Your task to perform on an android device: delete the emails in spam in the gmail app Image 0: 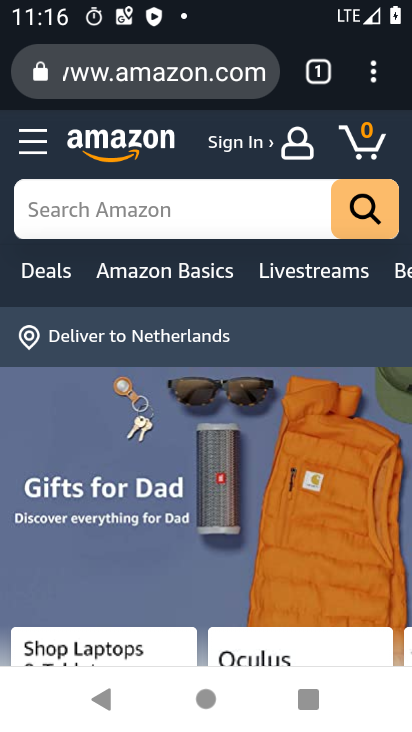
Step 0: press home button
Your task to perform on an android device: delete the emails in spam in the gmail app Image 1: 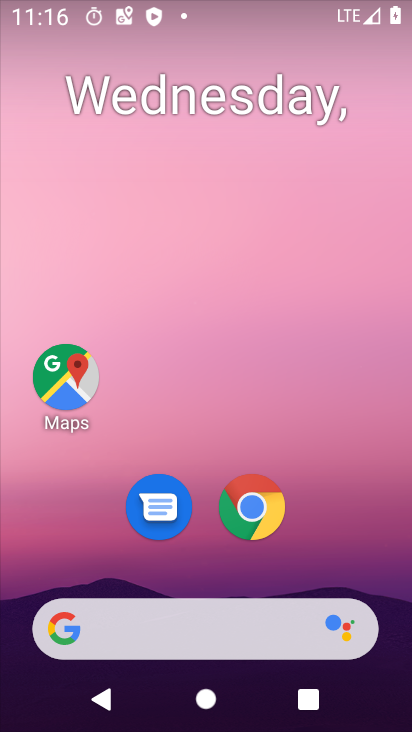
Step 1: drag from (253, 723) to (206, 143)
Your task to perform on an android device: delete the emails in spam in the gmail app Image 2: 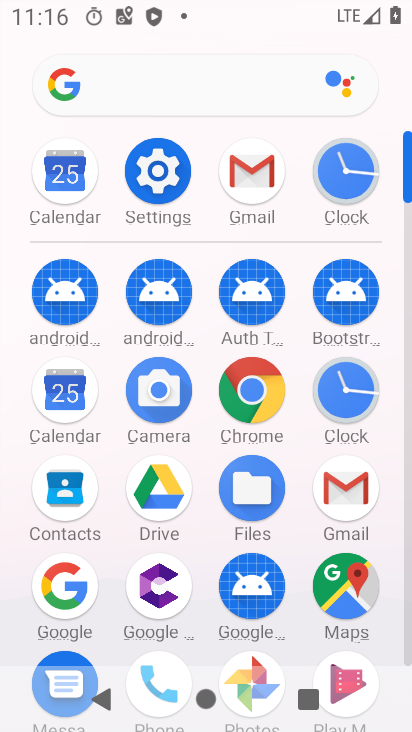
Step 2: click (341, 481)
Your task to perform on an android device: delete the emails in spam in the gmail app Image 3: 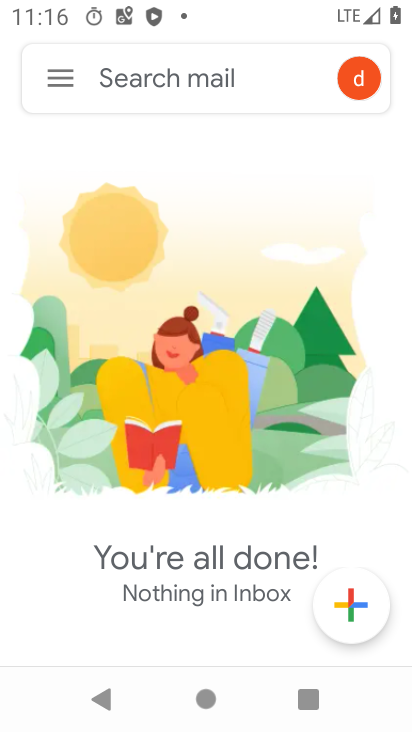
Step 3: task complete